Your task to perform on an android device: What's the weather going to be tomorrow? Image 0: 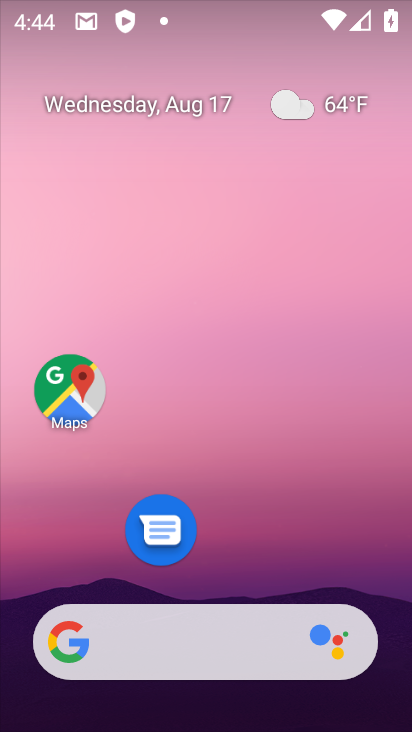
Step 0: drag from (186, 558) to (186, 204)
Your task to perform on an android device: What's the weather going to be tomorrow? Image 1: 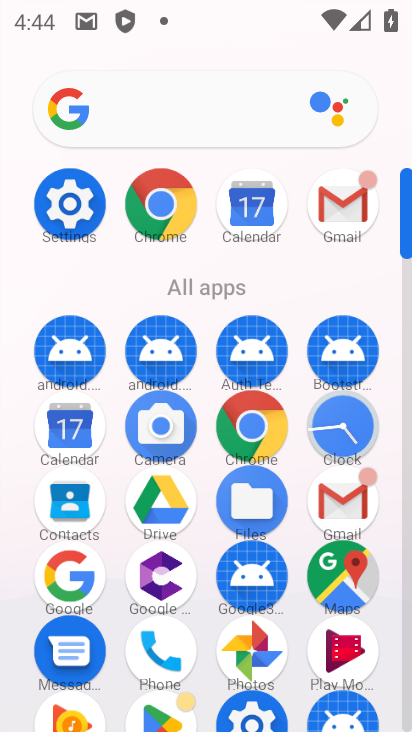
Step 1: click (56, 562)
Your task to perform on an android device: What's the weather going to be tomorrow? Image 2: 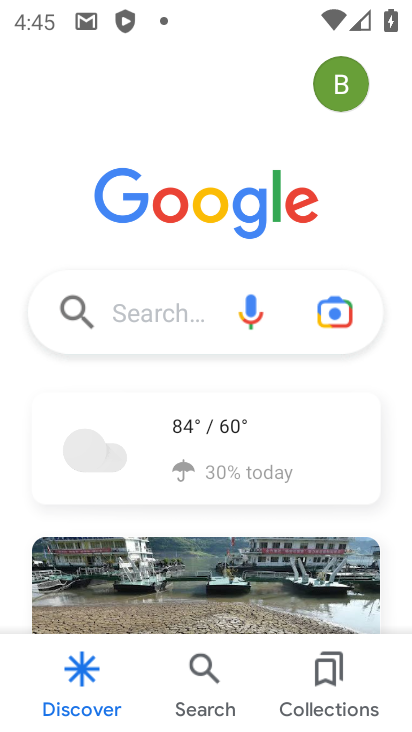
Step 2: click (199, 460)
Your task to perform on an android device: What's the weather going to be tomorrow? Image 3: 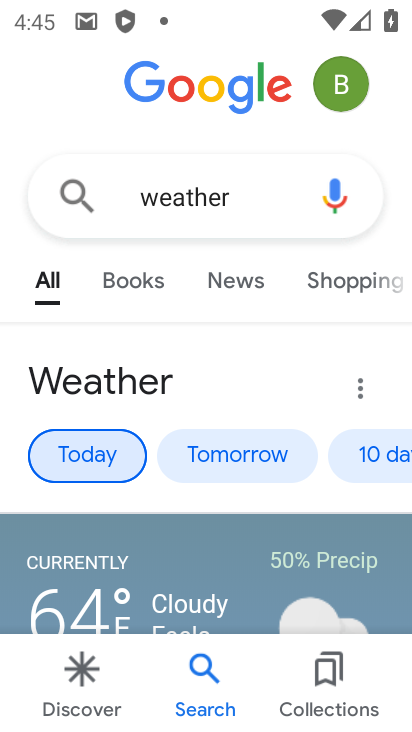
Step 3: click (218, 459)
Your task to perform on an android device: What's the weather going to be tomorrow? Image 4: 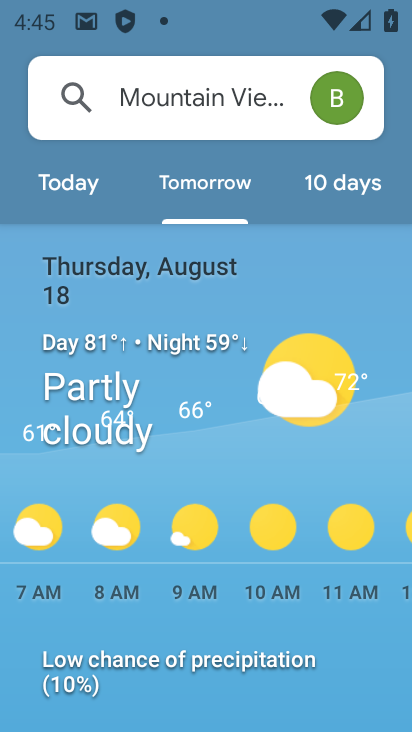
Step 4: task complete